Your task to perform on an android device: Open the map Image 0: 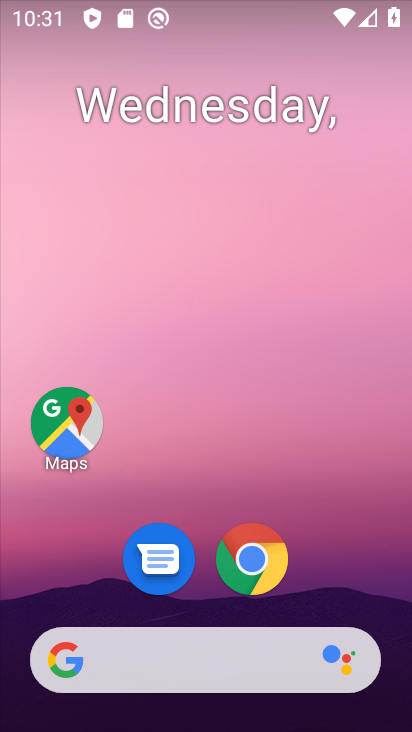
Step 0: drag from (377, 604) to (360, 75)
Your task to perform on an android device: Open the map Image 1: 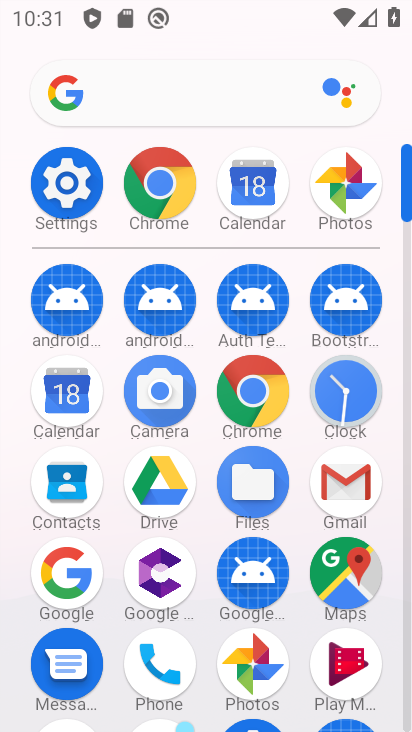
Step 1: click (377, 577)
Your task to perform on an android device: Open the map Image 2: 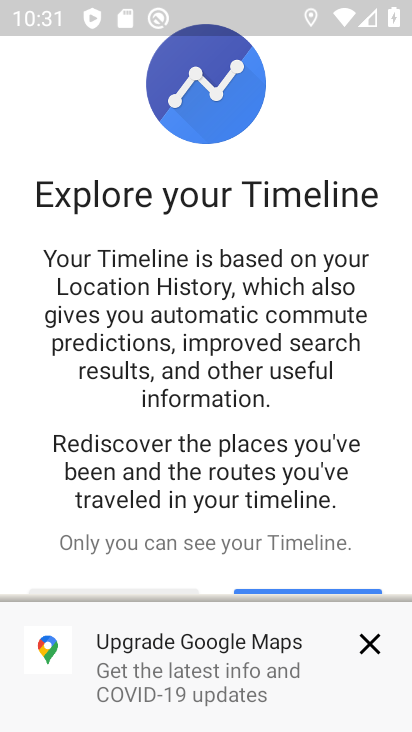
Step 2: task complete